Your task to perform on an android device: turn on sleep mode Image 0: 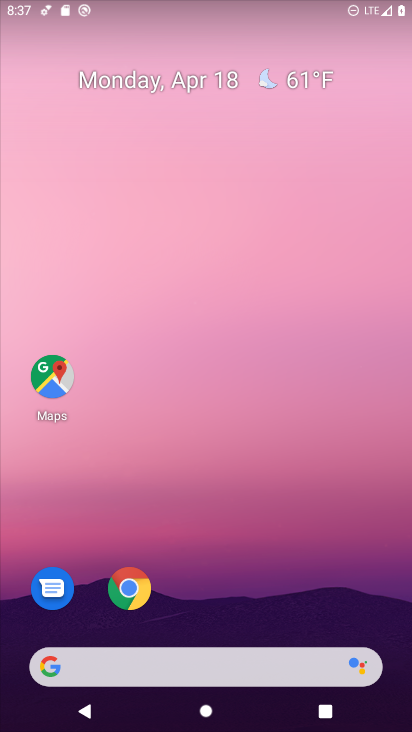
Step 0: drag from (385, 624) to (310, 150)
Your task to perform on an android device: turn on sleep mode Image 1: 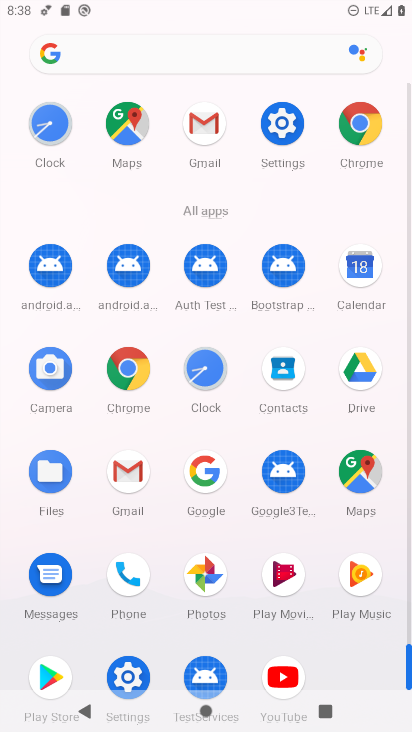
Step 1: click (123, 674)
Your task to perform on an android device: turn on sleep mode Image 2: 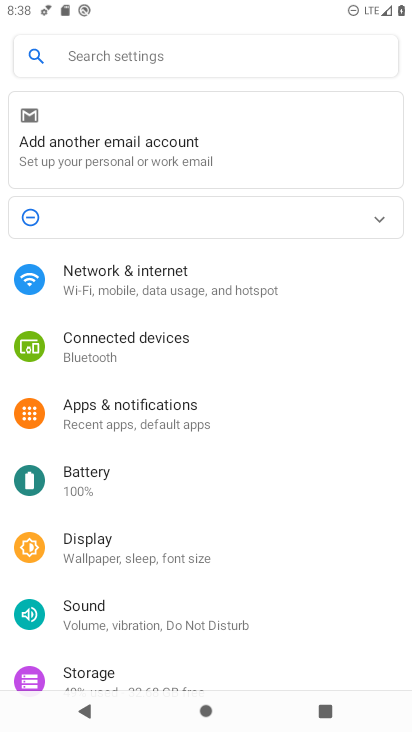
Step 2: click (87, 549)
Your task to perform on an android device: turn on sleep mode Image 3: 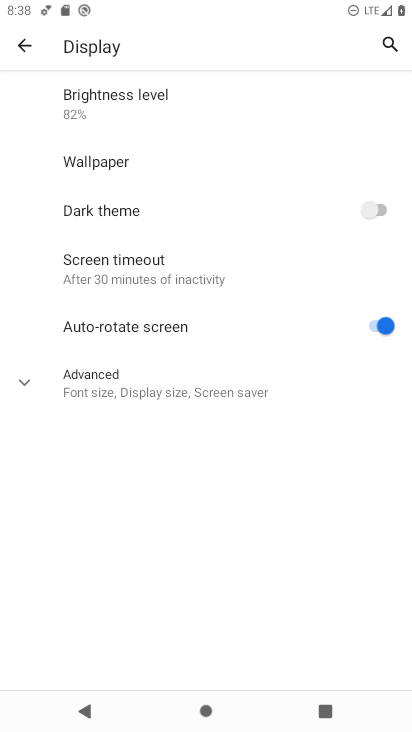
Step 3: click (26, 376)
Your task to perform on an android device: turn on sleep mode Image 4: 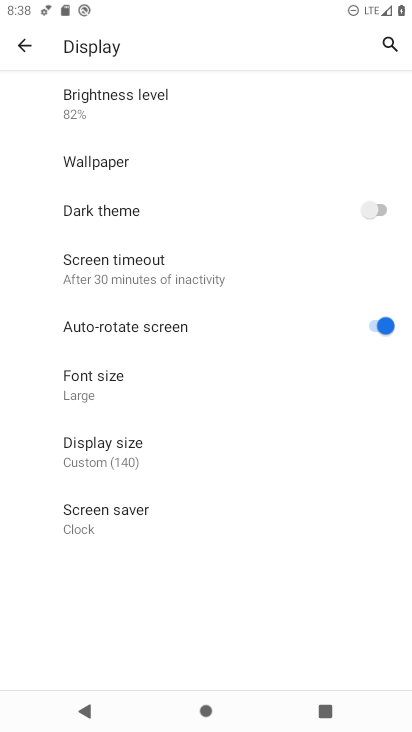
Step 4: task complete